Your task to perform on an android device: set the timer Image 0: 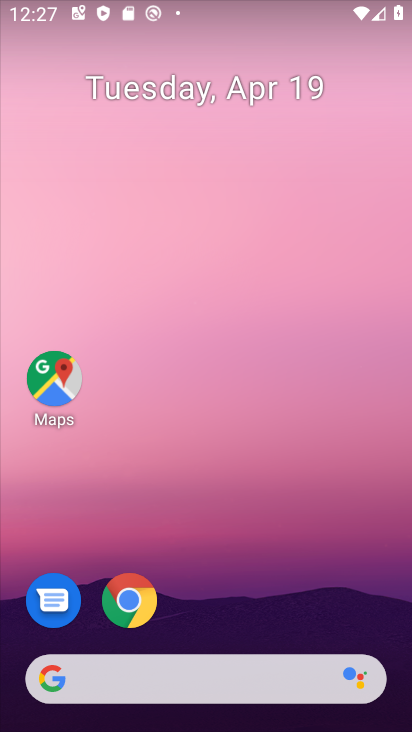
Step 0: drag from (218, 624) to (220, 187)
Your task to perform on an android device: set the timer Image 1: 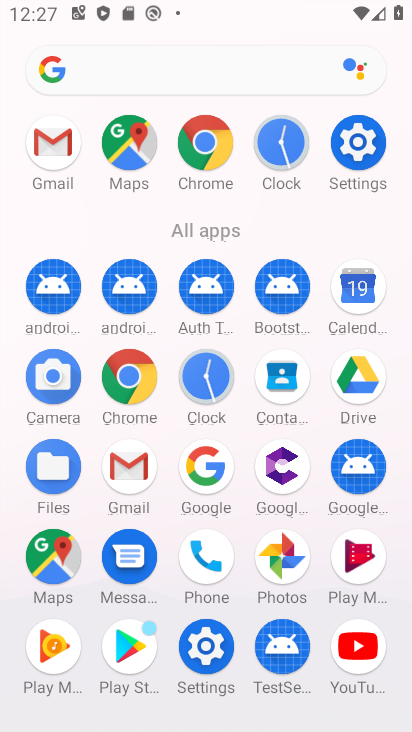
Step 1: click (206, 379)
Your task to perform on an android device: set the timer Image 2: 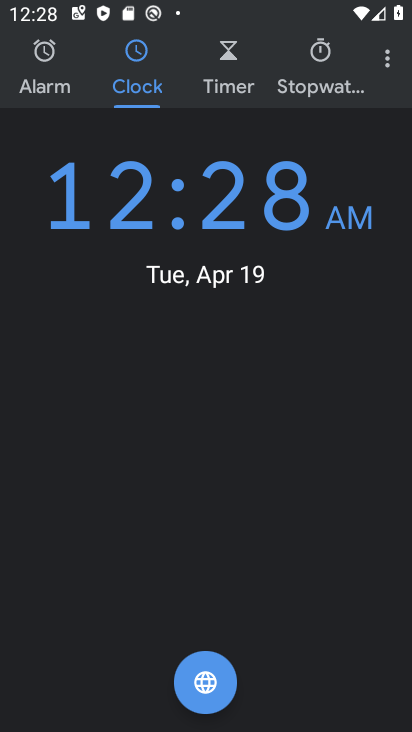
Step 2: click (238, 68)
Your task to perform on an android device: set the timer Image 3: 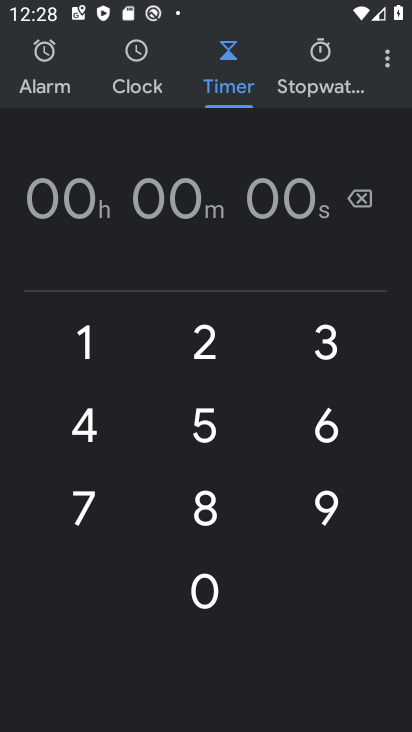
Step 3: click (181, 347)
Your task to perform on an android device: set the timer Image 4: 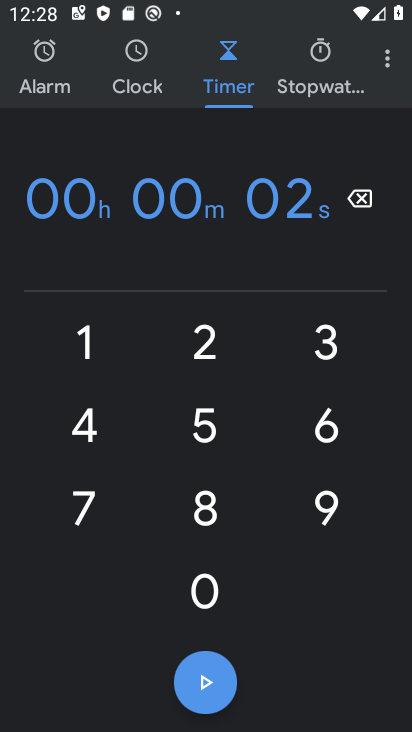
Step 4: click (210, 348)
Your task to perform on an android device: set the timer Image 5: 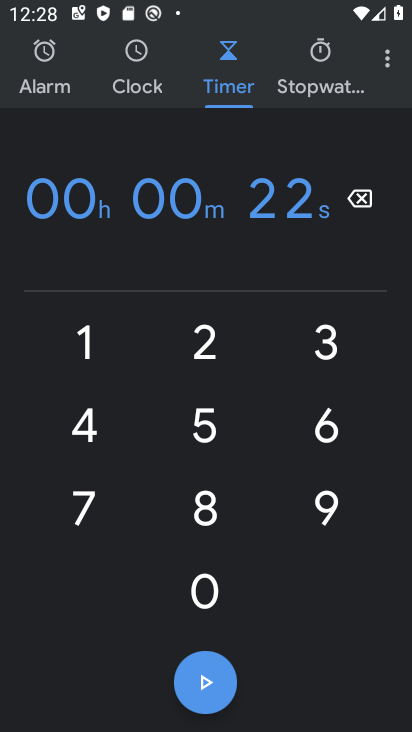
Step 5: click (194, 683)
Your task to perform on an android device: set the timer Image 6: 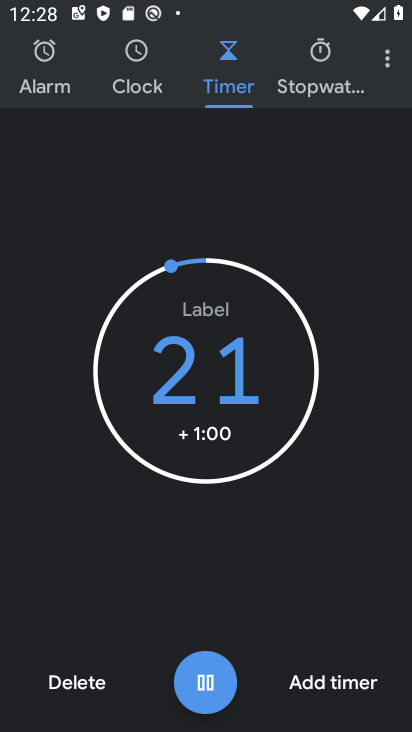
Step 6: task complete